Your task to perform on an android device: When is my next meeting? Image 0: 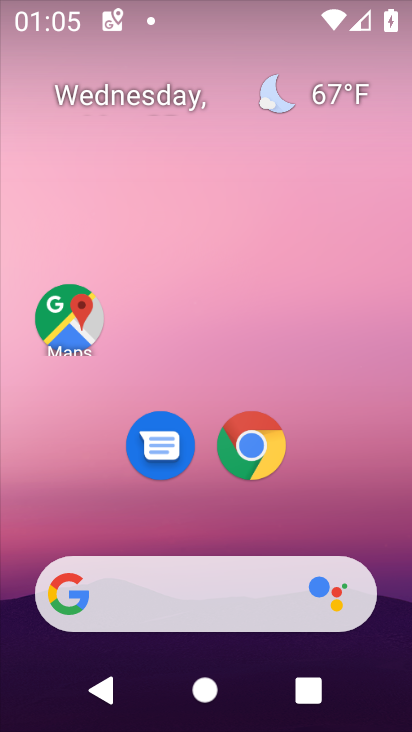
Step 0: drag from (393, 557) to (334, 125)
Your task to perform on an android device: When is my next meeting? Image 1: 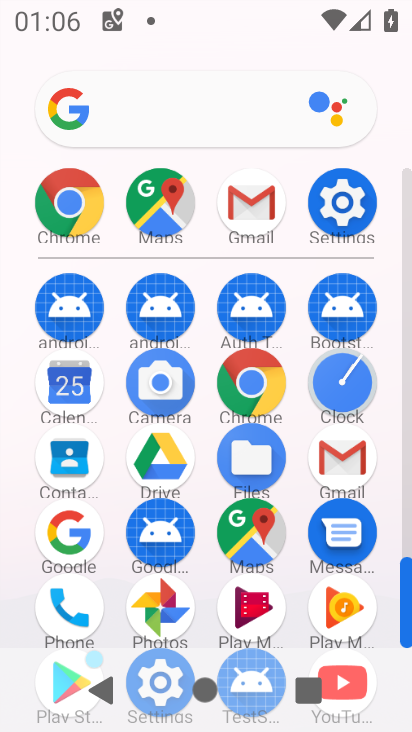
Step 1: click (85, 390)
Your task to perform on an android device: When is my next meeting? Image 2: 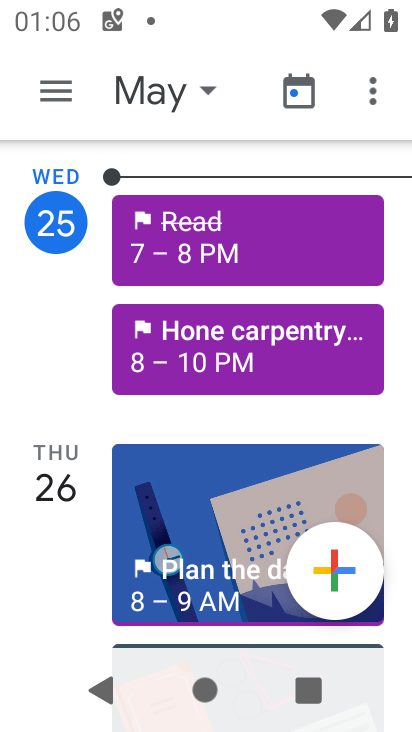
Step 2: task complete